Your task to perform on an android device: open app "Yahoo Mail" (install if not already installed) Image 0: 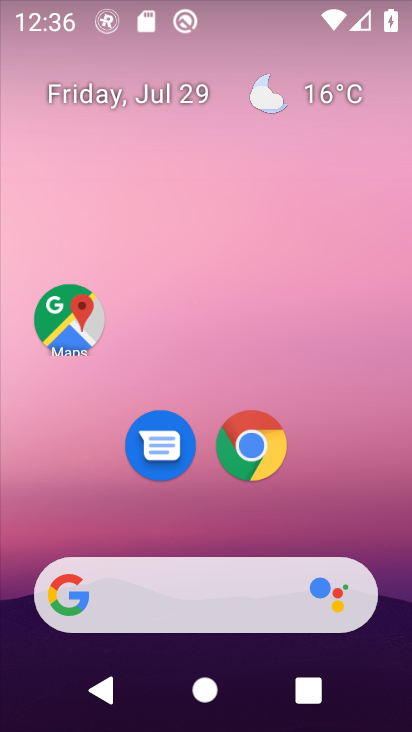
Step 0: press home button
Your task to perform on an android device: open app "Yahoo Mail" (install if not already installed) Image 1: 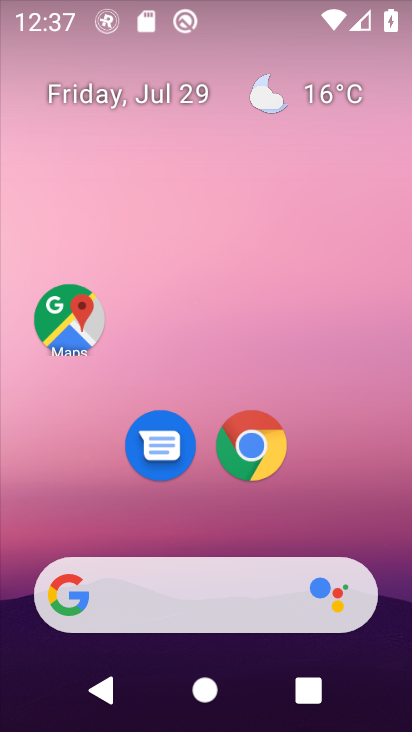
Step 1: drag from (302, 538) to (328, 138)
Your task to perform on an android device: open app "Yahoo Mail" (install if not already installed) Image 2: 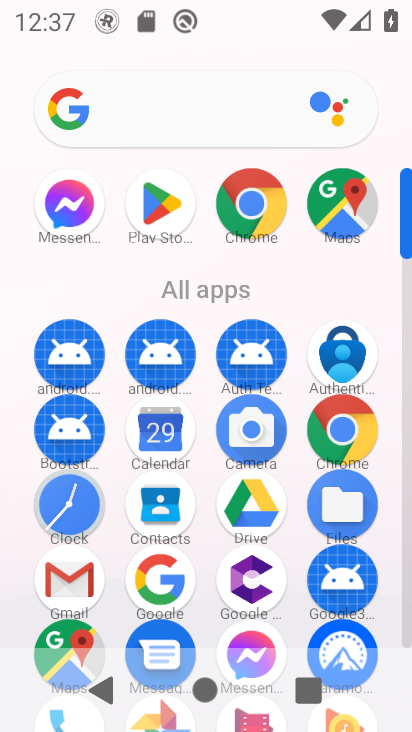
Step 2: click (166, 192)
Your task to perform on an android device: open app "Yahoo Mail" (install if not already installed) Image 3: 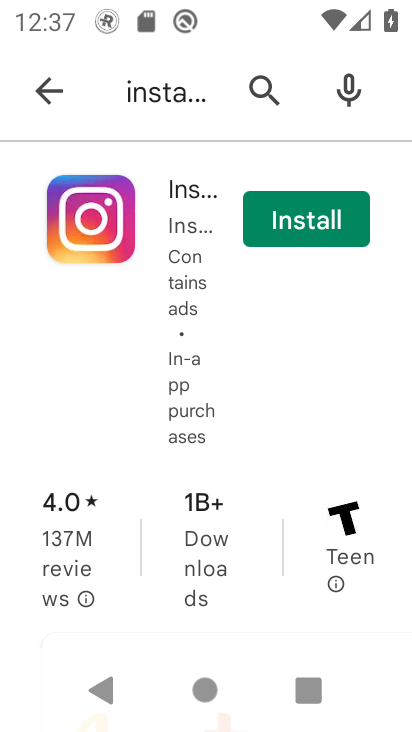
Step 3: click (357, 94)
Your task to perform on an android device: open app "Yahoo Mail" (install if not already installed) Image 4: 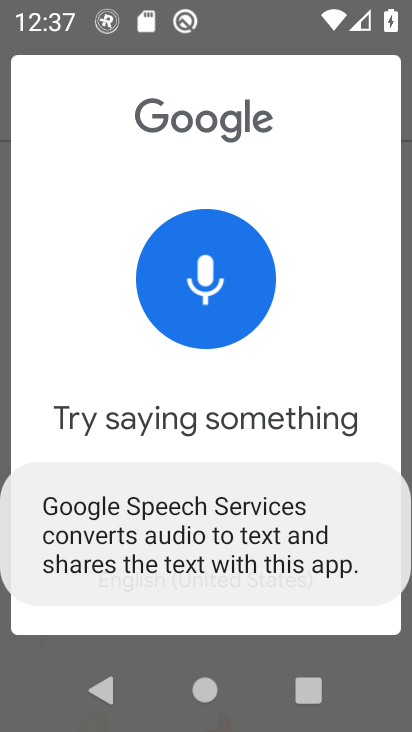
Step 4: press back button
Your task to perform on an android device: open app "Yahoo Mail" (install if not already installed) Image 5: 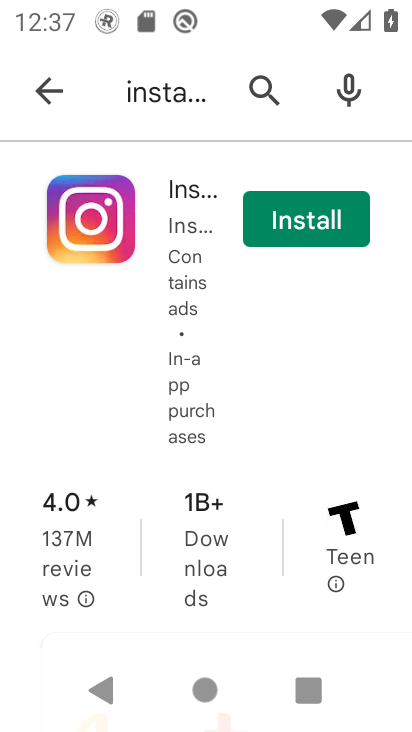
Step 5: click (258, 99)
Your task to perform on an android device: open app "Yahoo Mail" (install if not already installed) Image 6: 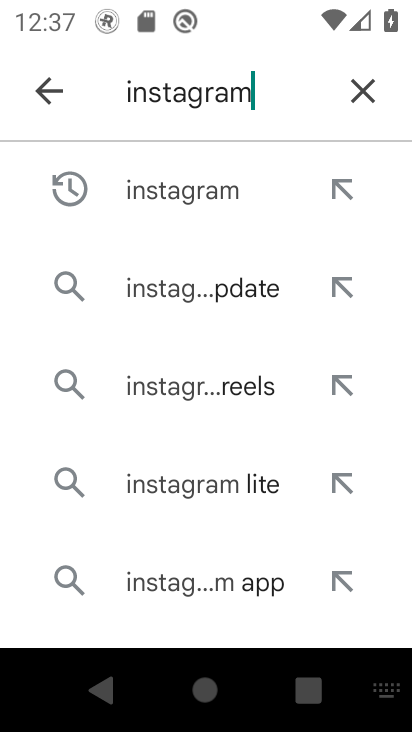
Step 6: click (367, 88)
Your task to perform on an android device: open app "Yahoo Mail" (install if not already installed) Image 7: 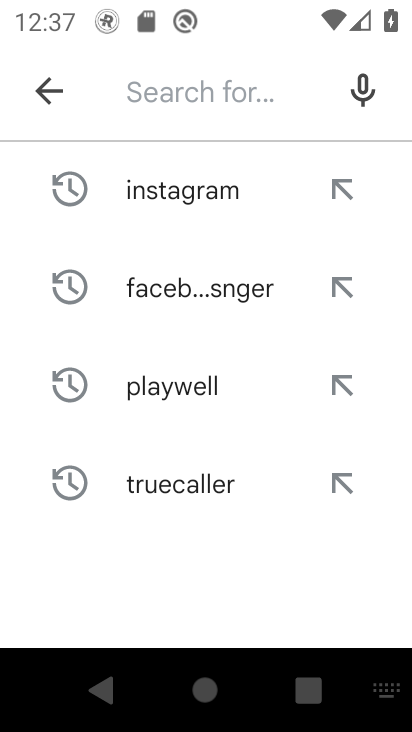
Step 7: type "Yahoo Mail"
Your task to perform on an android device: open app "Yahoo Mail" (install if not already installed) Image 8: 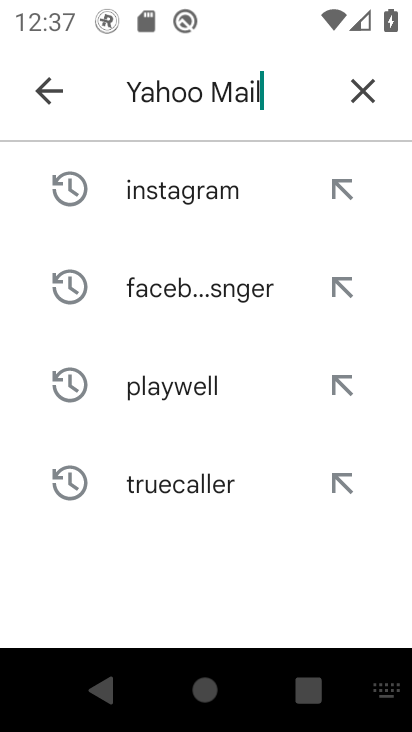
Step 8: type ""
Your task to perform on an android device: open app "Yahoo Mail" (install if not already installed) Image 9: 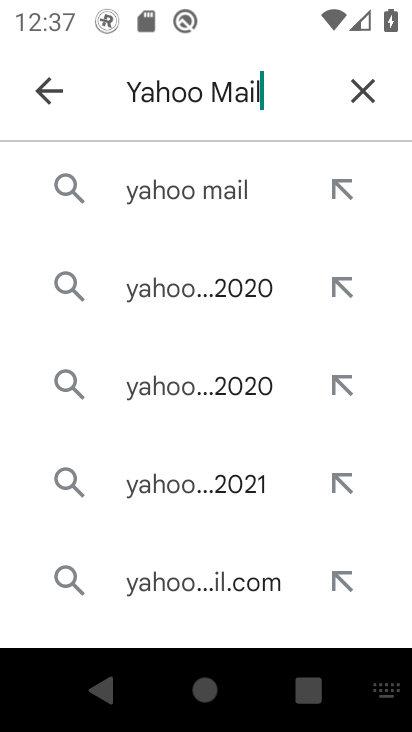
Step 9: click (122, 202)
Your task to perform on an android device: open app "Yahoo Mail" (install if not already installed) Image 10: 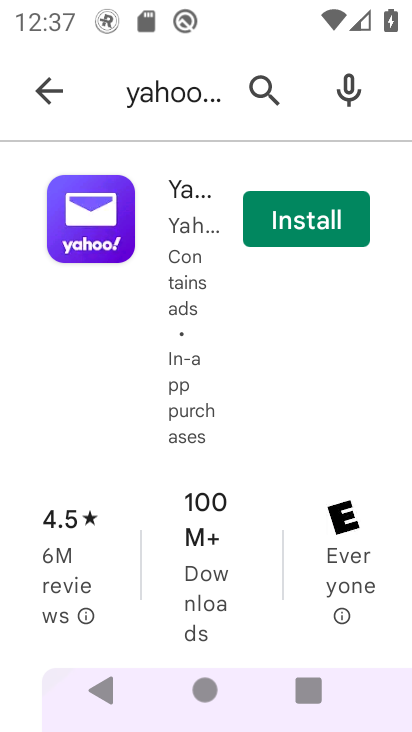
Step 10: click (282, 217)
Your task to perform on an android device: open app "Yahoo Mail" (install if not already installed) Image 11: 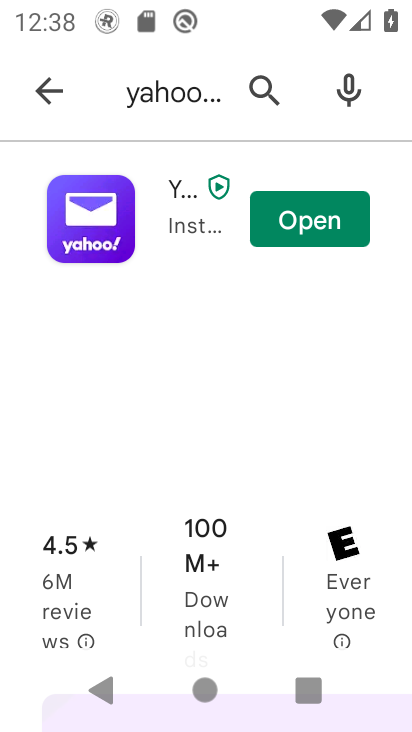
Step 11: click (321, 205)
Your task to perform on an android device: open app "Yahoo Mail" (install if not already installed) Image 12: 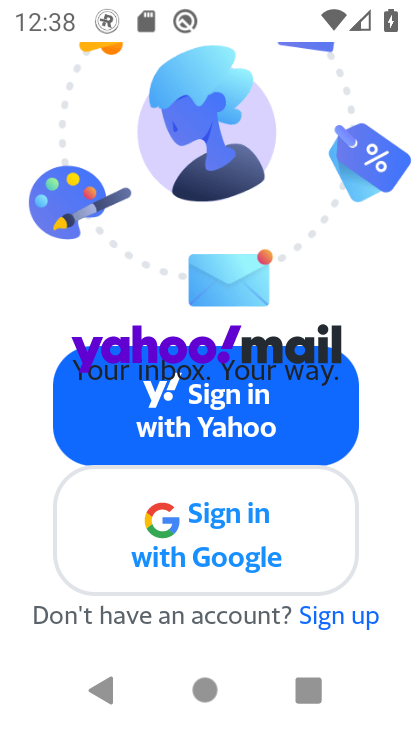
Step 12: task complete